Your task to perform on an android device: see tabs open on other devices in the chrome app Image 0: 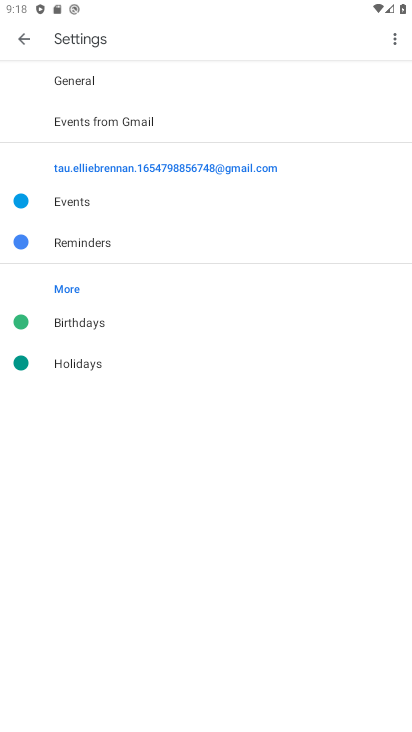
Step 0: press home button
Your task to perform on an android device: see tabs open on other devices in the chrome app Image 1: 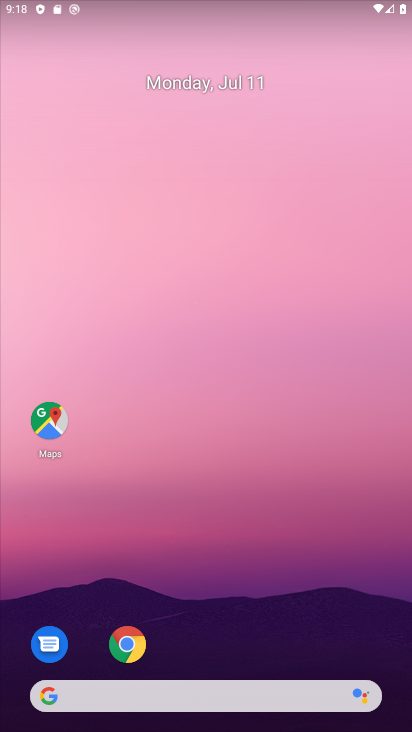
Step 1: click (127, 637)
Your task to perform on an android device: see tabs open on other devices in the chrome app Image 2: 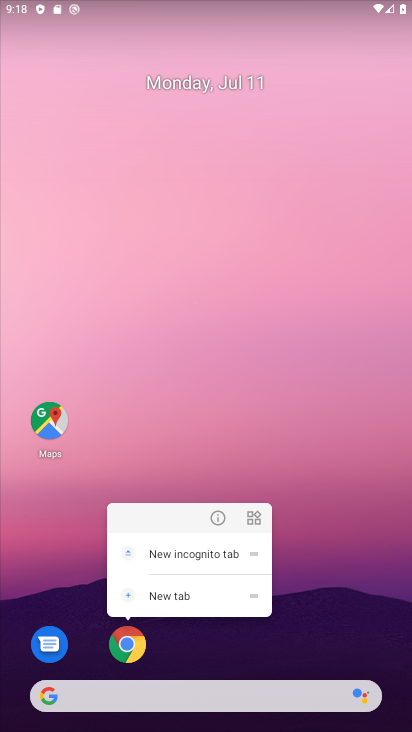
Step 2: click (127, 637)
Your task to perform on an android device: see tabs open on other devices in the chrome app Image 3: 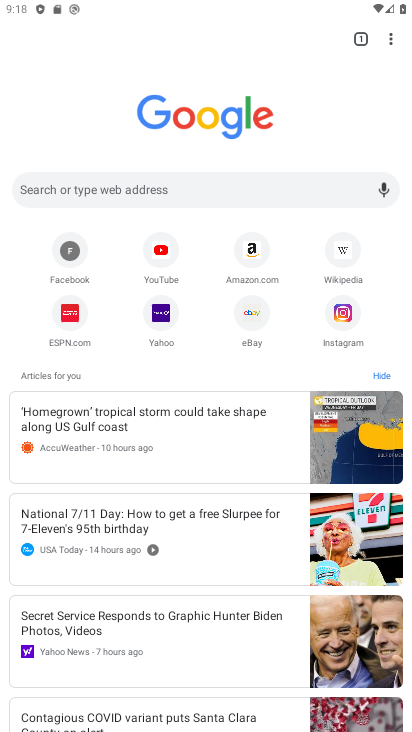
Step 3: click (388, 34)
Your task to perform on an android device: see tabs open on other devices in the chrome app Image 4: 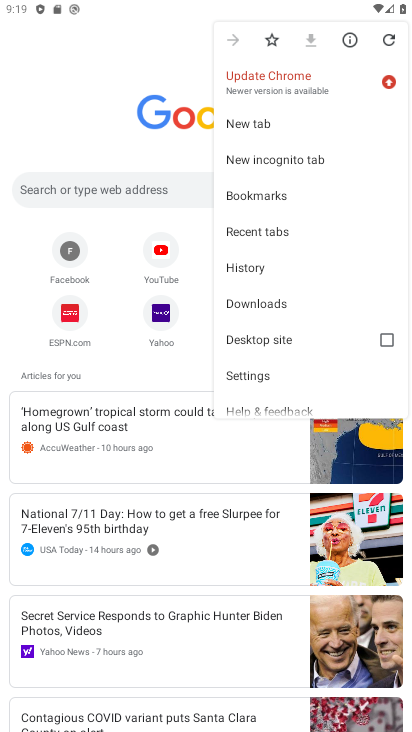
Step 4: click (274, 370)
Your task to perform on an android device: see tabs open on other devices in the chrome app Image 5: 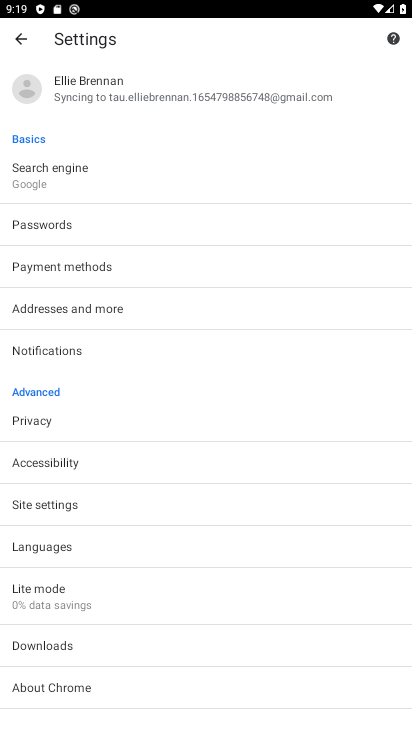
Step 5: click (20, 33)
Your task to perform on an android device: see tabs open on other devices in the chrome app Image 6: 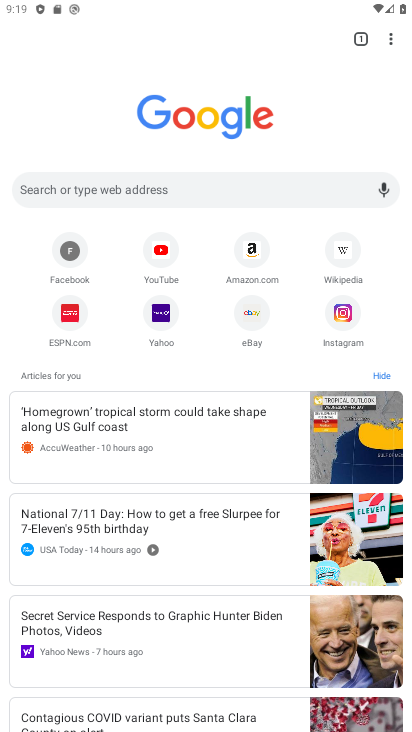
Step 6: click (392, 37)
Your task to perform on an android device: see tabs open on other devices in the chrome app Image 7: 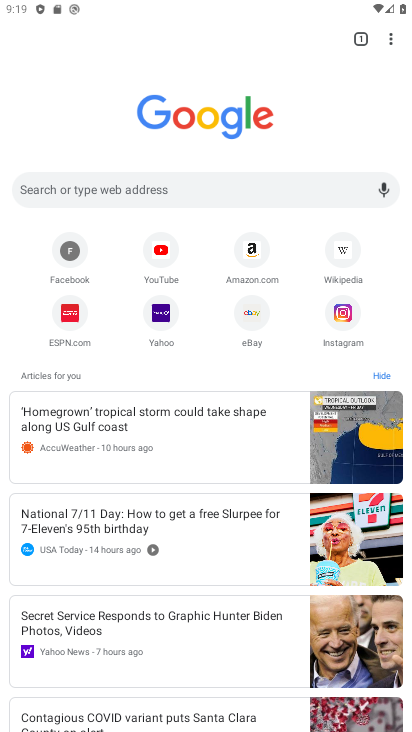
Step 7: click (391, 41)
Your task to perform on an android device: see tabs open on other devices in the chrome app Image 8: 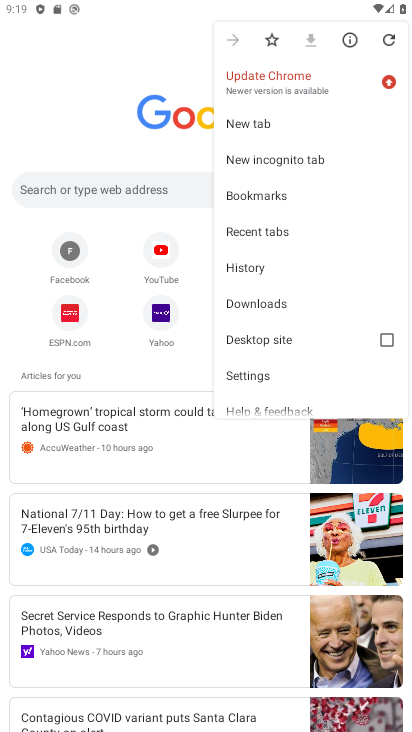
Step 8: click (295, 227)
Your task to perform on an android device: see tabs open on other devices in the chrome app Image 9: 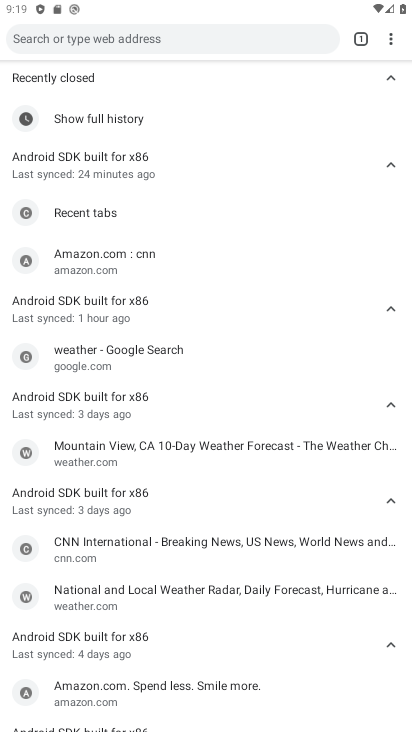
Step 9: task complete